Your task to perform on an android device: Go to settings Image 0: 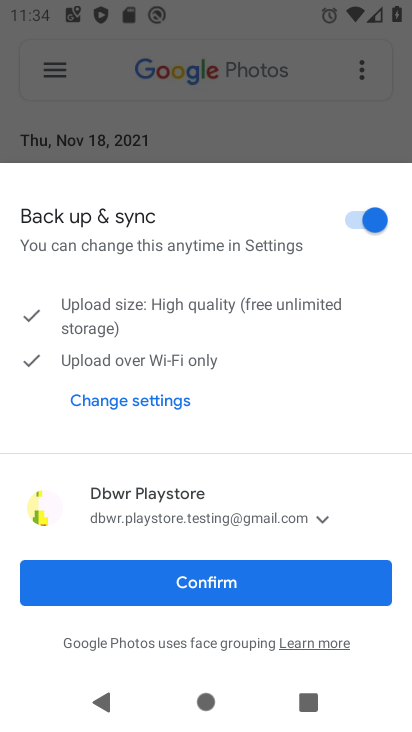
Step 0: press home button
Your task to perform on an android device: Go to settings Image 1: 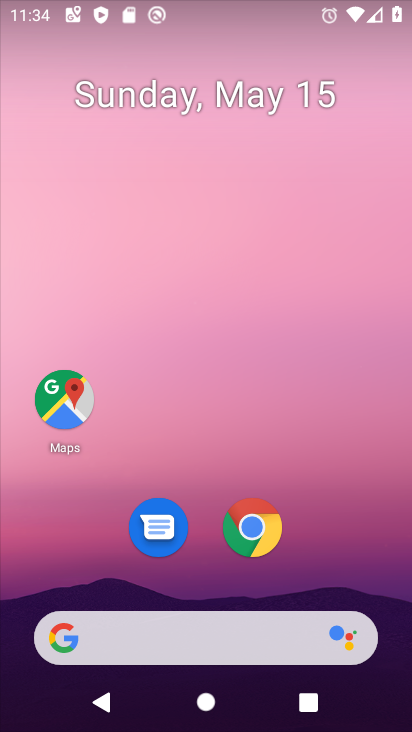
Step 1: drag from (357, 565) to (352, 232)
Your task to perform on an android device: Go to settings Image 2: 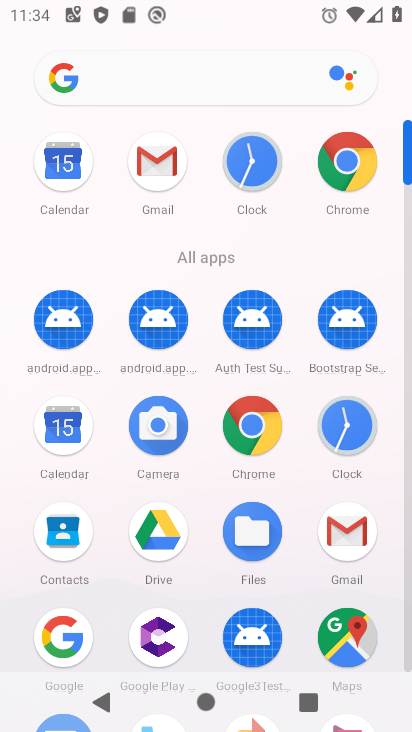
Step 2: click (406, 664)
Your task to perform on an android device: Go to settings Image 3: 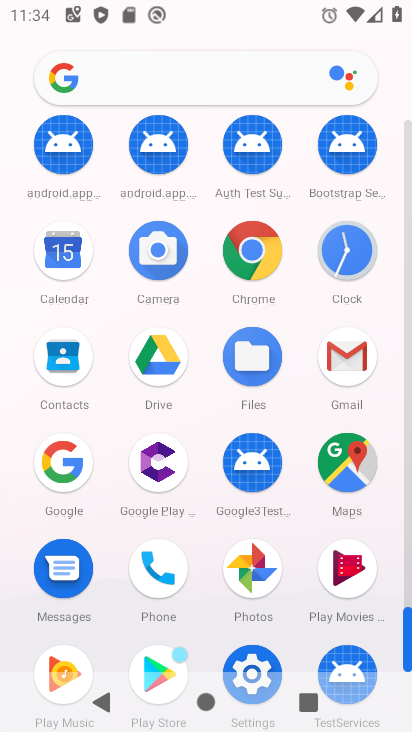
Step 3: click (260, 658)
Your task to perform on an android device: Go to settings Image 4: 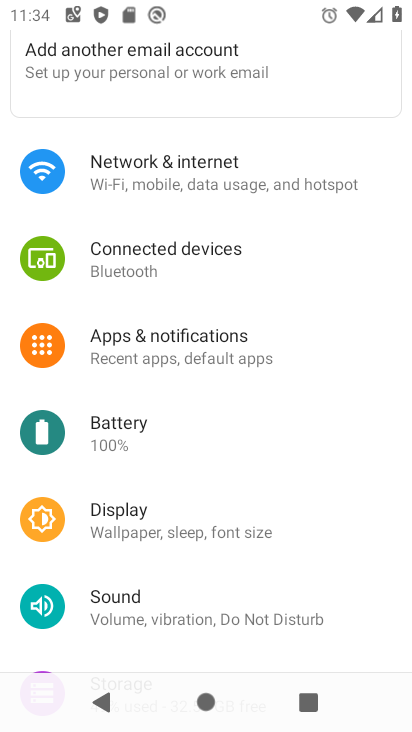
Step 4: task complete